Your task to perform on an android device: turn on javascript in the chrome app Image 0: 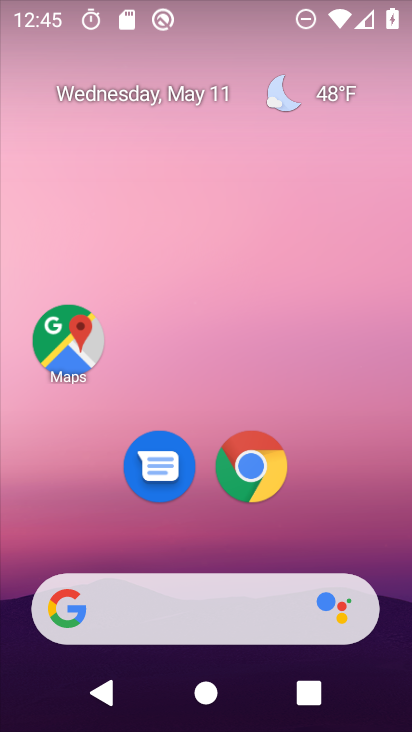
Step 0: click (254, 458)
Your task to perform on an android device: turn on javascript in the chrome app Image 1: 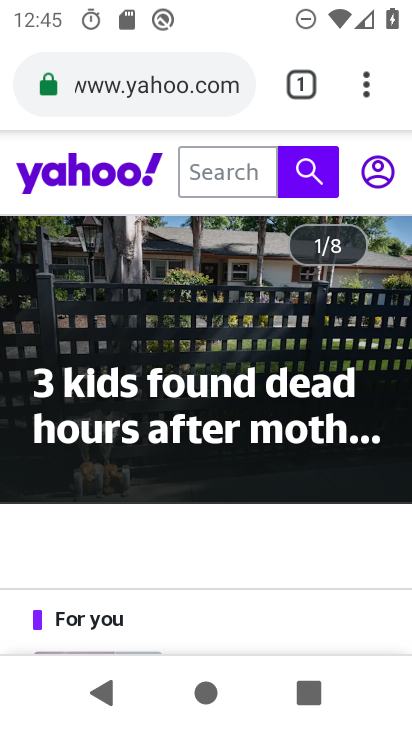
Step 1: click (367, 84)
Your task to perform on an android device: turn on javascript in the chrome app Image 2: 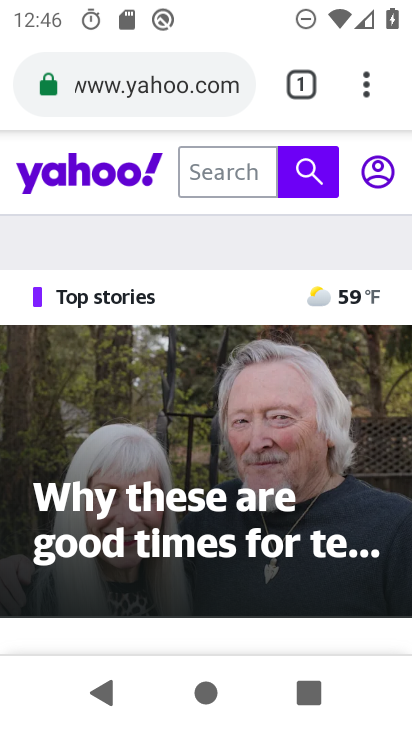
Step 2: click (365, 81)
Your task to perform on an android device: turn on javascript in the chrome app Image 3: 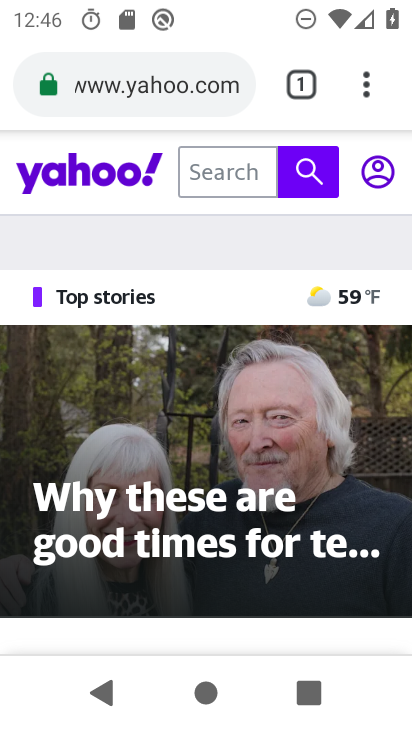
Step 3: click (363, 90)
Your task to perform on an android device: turn on javascript in the chrome app Image 4: 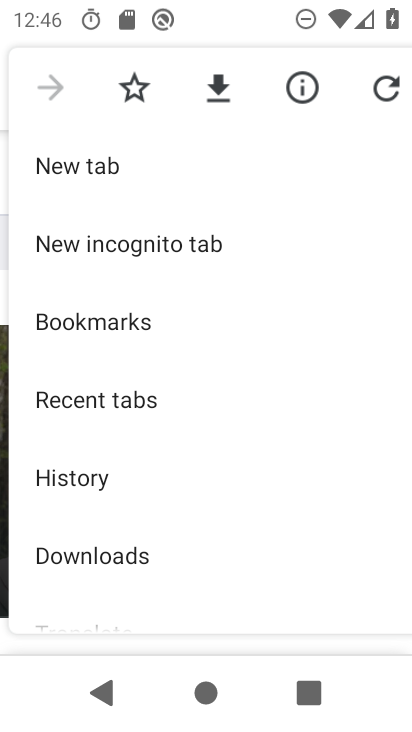
Step 4: drag from (165, 573) to (203, 194)
Your task to perform on an android device: turn on javascript in the chrome app Image 5: 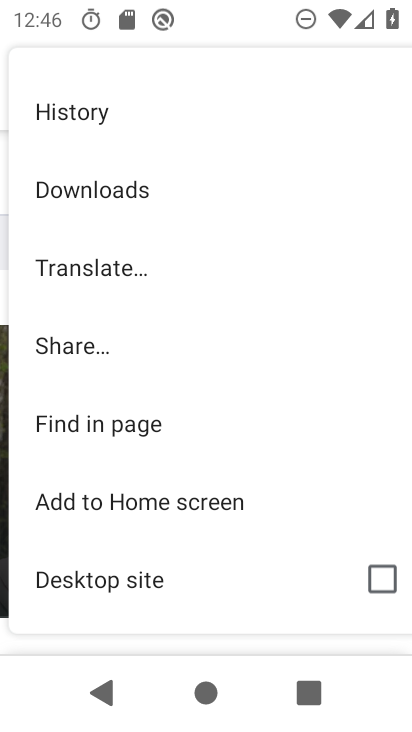
Step 5: drag from (201, 565) to (244, 17)
Your task to perform on an android device: turn on javascript in the chrome app Image 6: 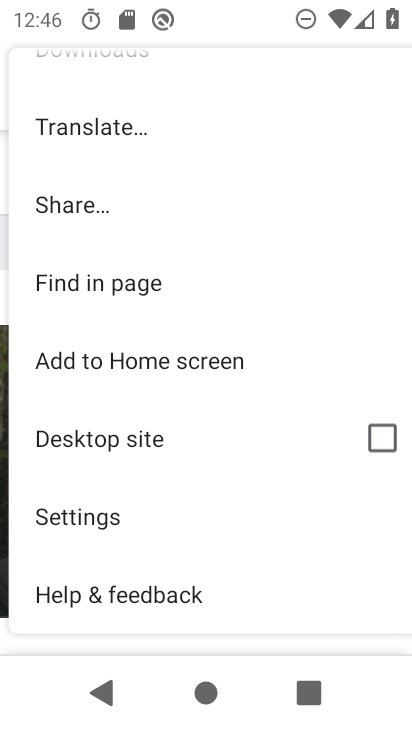
Step 6: click (131, 514)
Your task to perform on an android device: turn on javascript in the chrome app Image 7: 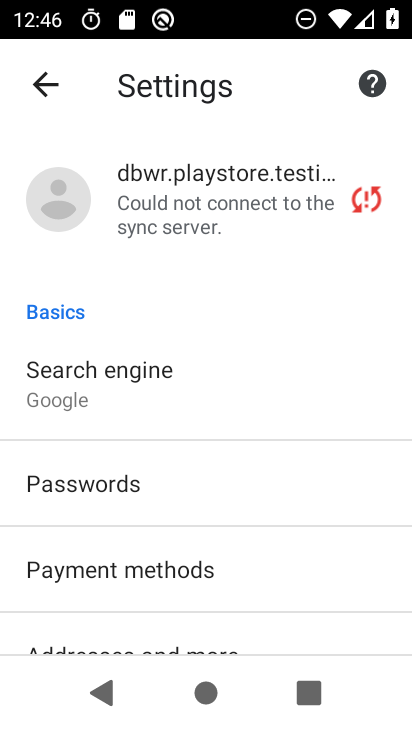
Step 7: drag from (235, 603) to (242, 169)
Your task to perform on an android device: turn on javascript in the chrome app Image 8: 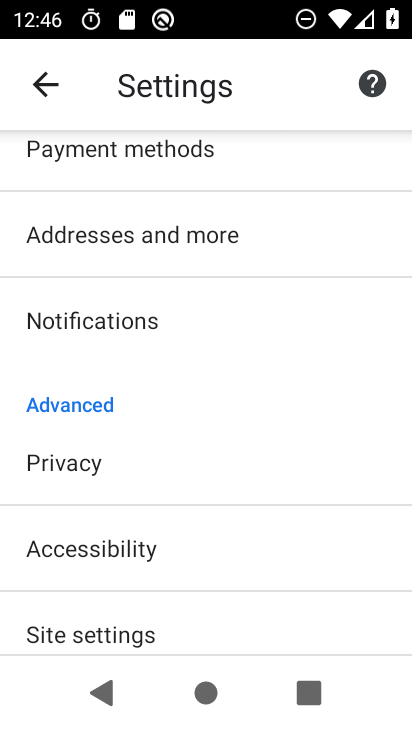
Step 8: click (168, 628)
Your task to perform on an android device: turn on javascript in the chrome app Image 9: 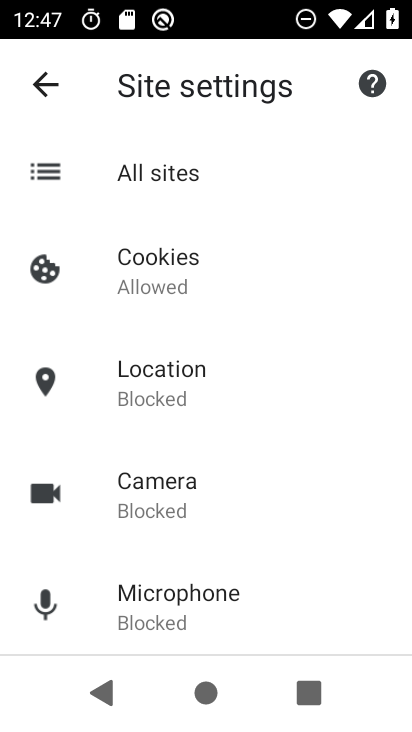
Step 9: drag from (271, 434) to (304, 136)
Your task to perform on an android device: turn on javascript in the chrome app Image 10: 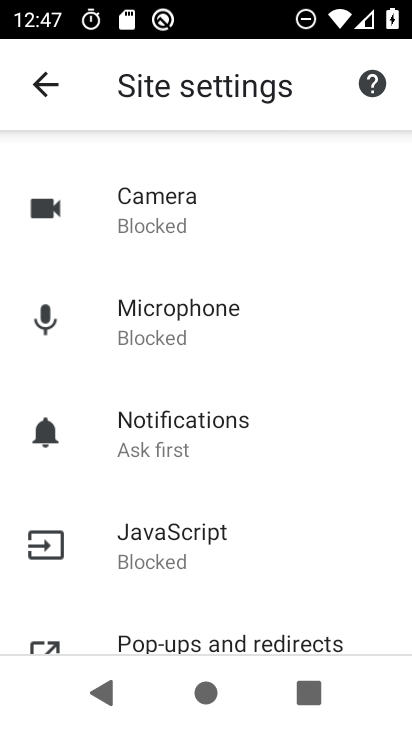
Step 10: click (201, 549)
Your task to perform on an android device: turn on javascript in the chrome app Image 11: 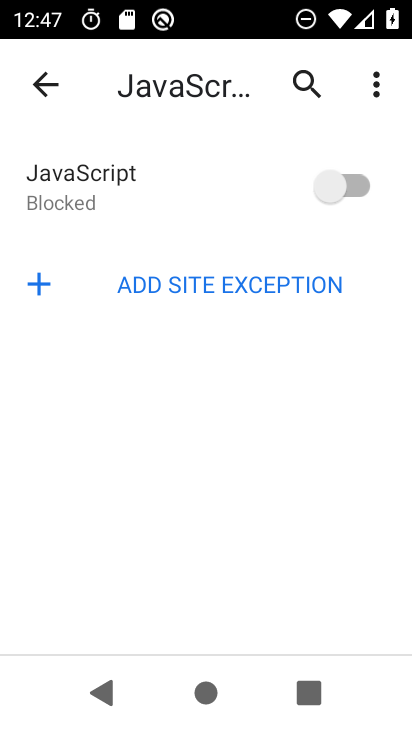
Step 11: click (359, 185)
Your task to perform on an android device: turn on javascript in the chrome app Image 12: 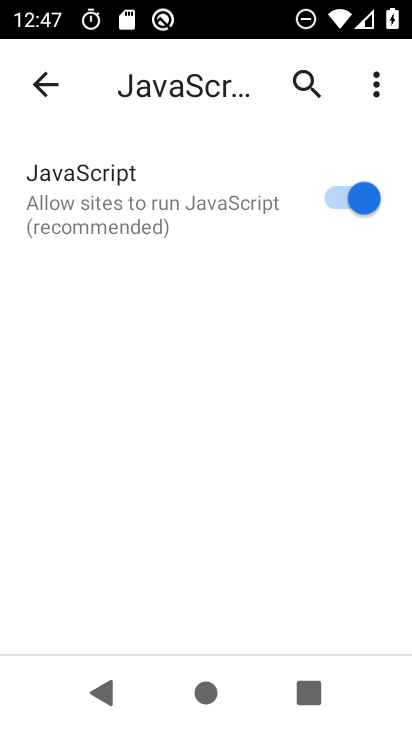
Step 12: task complete